Your task to perform on an android device: Go to display settings Image 0: 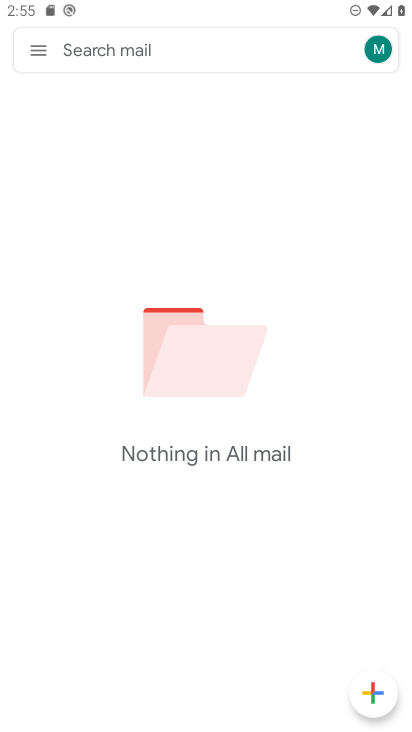
Step 0: press back button
Your task to perform on an android device: Go to display settings Image 1: 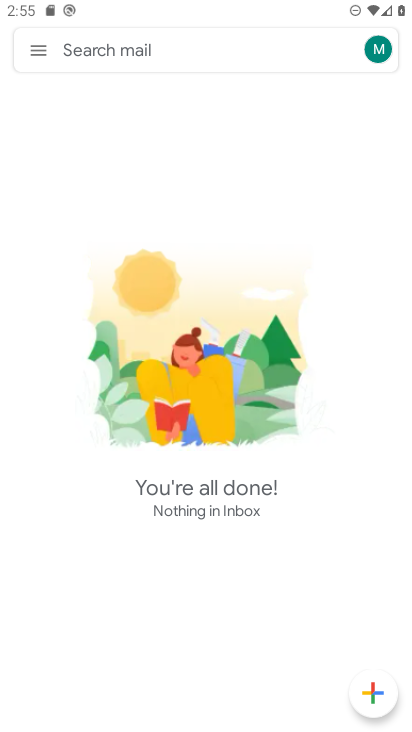
Step 1: press back button
Your task to perform on an android device: Go to display settings Image 2: 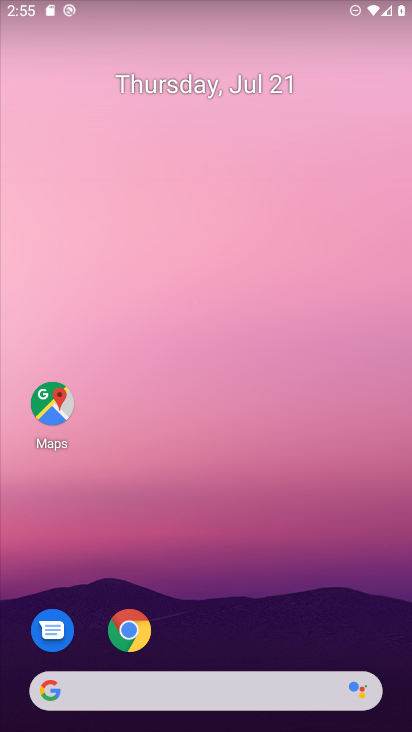
Step 2: drag from (235, 631) to (280, 15)
Your task to perform on an android device: Go to display settings Image 3: 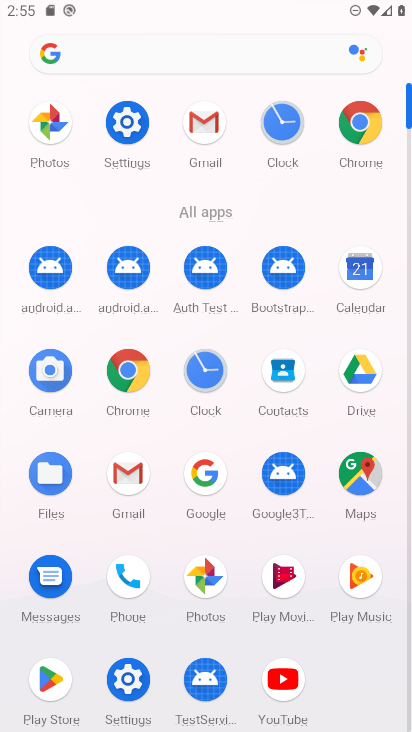
Step 3: click (133, 149)
Your task to perform on an android device: Go to display settings Image 4: 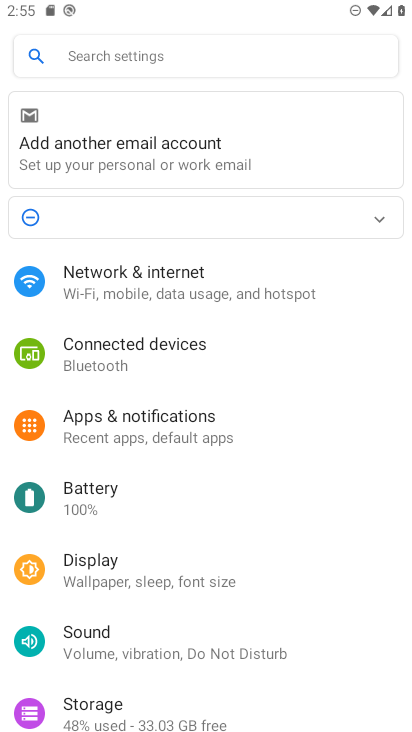
Step 4: click (91, 558)
Your task to perform on an android device: Go to display settings Image 5: 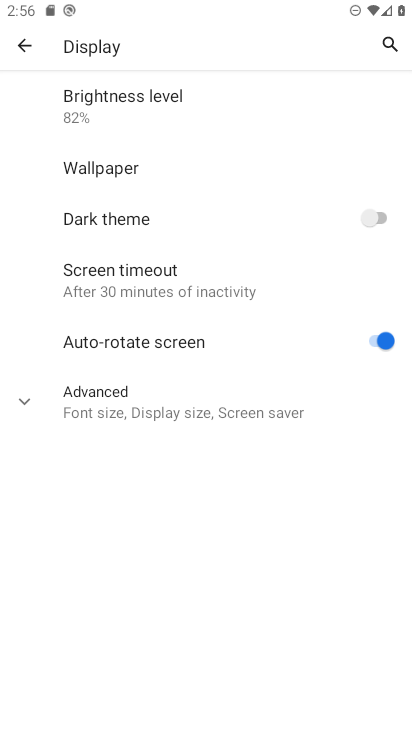
Step 5: task complete